Your task to perform on an android device: change keyboard looks Image 0: 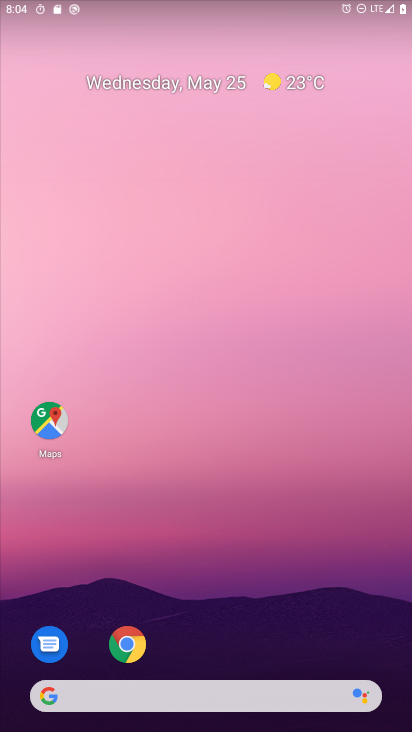
Step 0: drag from (332, 641) to (253, 88)
Your task to perform on an android device: change keyboard looks Image 1: 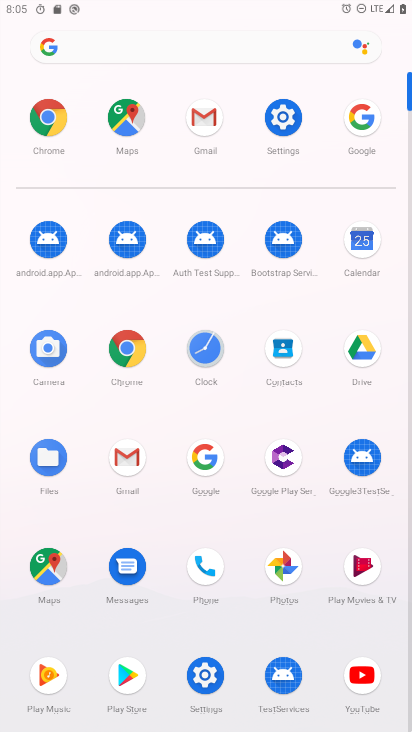
Step 1: click (213, 685)
Your task to perform on an android device: change keyboard looks Image 2: 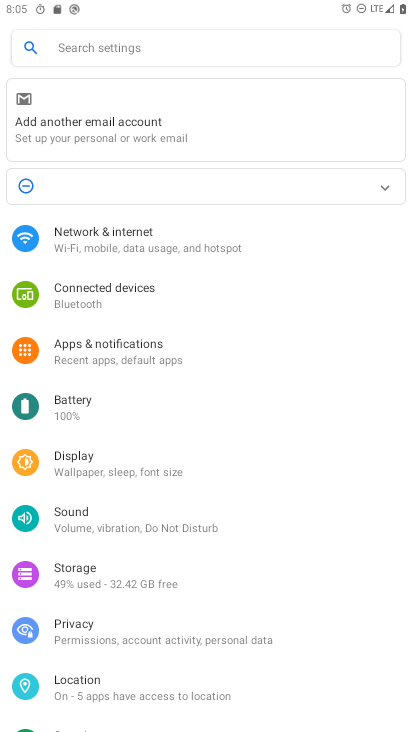
Step 2: drag from (200, 632) to (251, 56)
Your task to perform on an android device: change keyboard looks Image 3: 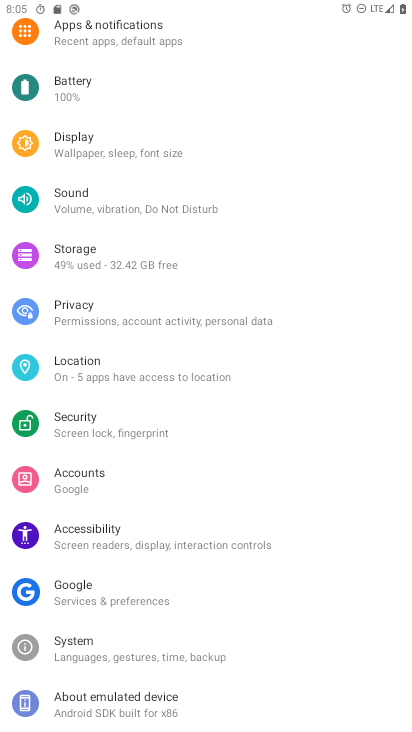
Step 3: click (163, 647)
Your task to perform on an android device: change keyboard looks Image 4: 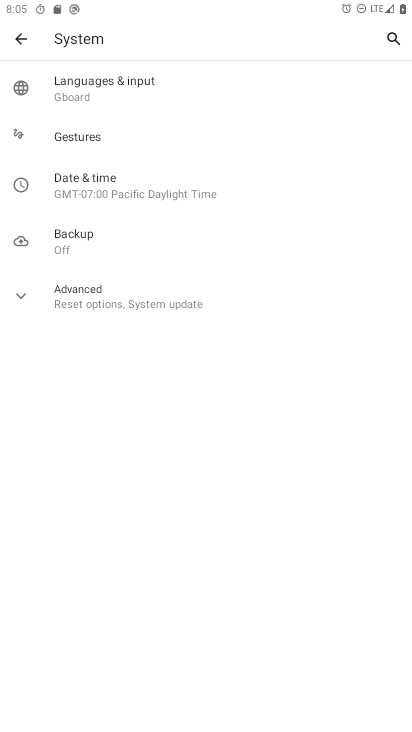
Step 4: click (121, 96)
Your task to perform on an android device: change keyboard looks Image 5: 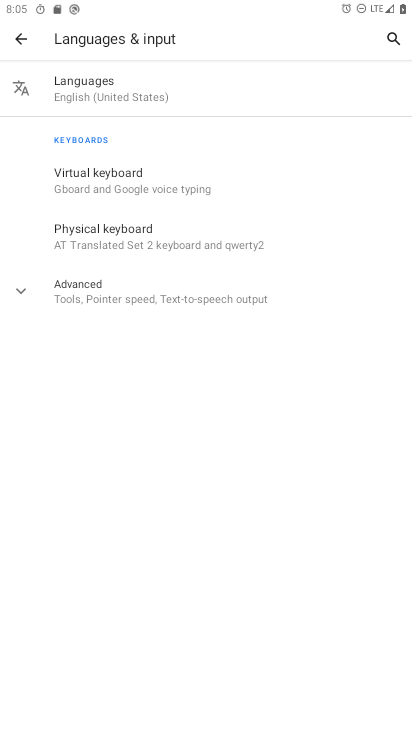
Step 5: click (127, 186)
Your task to perform on an android device: change keyboard looks Image 6: 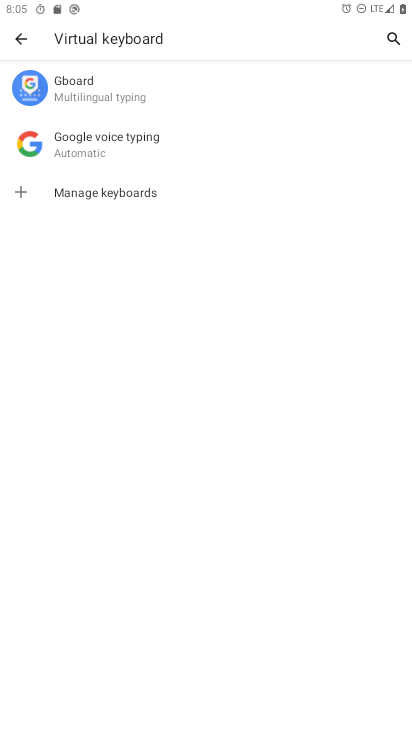
Step 6: click (156, 92)
Your task to perform on an android device: change keyboard looks Image 7: 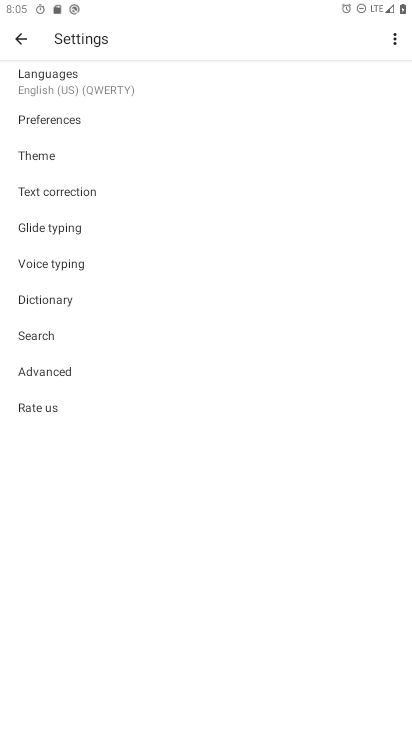
Step 7: click (56, 148)
Your task to perform on an android device: change keyboard looks Image 8: 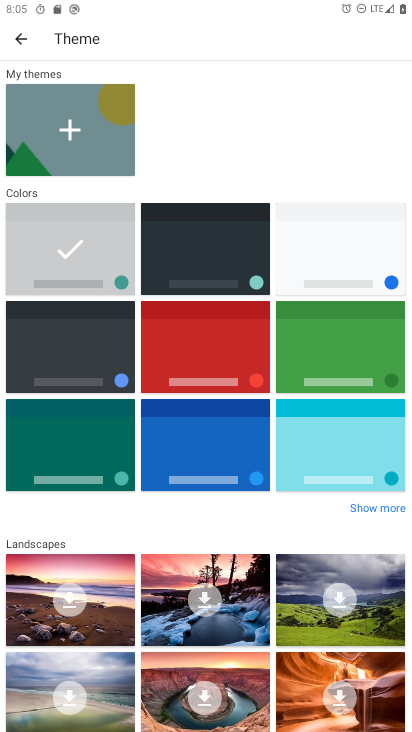
Step 8: click (205, 256)
Your task to perform on an android device: change keyboard looks Image 9: 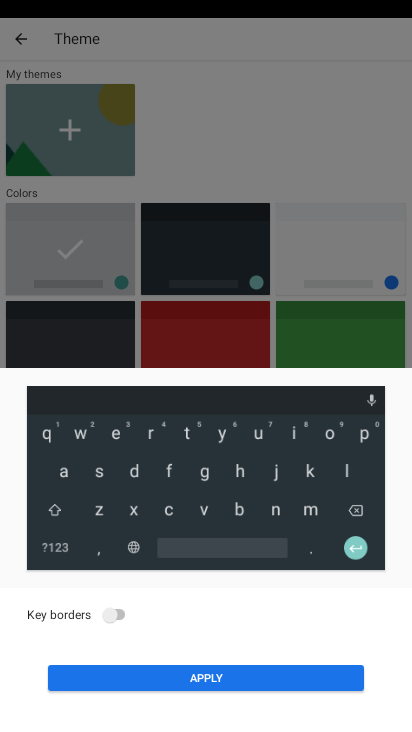
Step 9: click (203, 674)
Your task to perform on an android device: change keyboard looks Image 10: 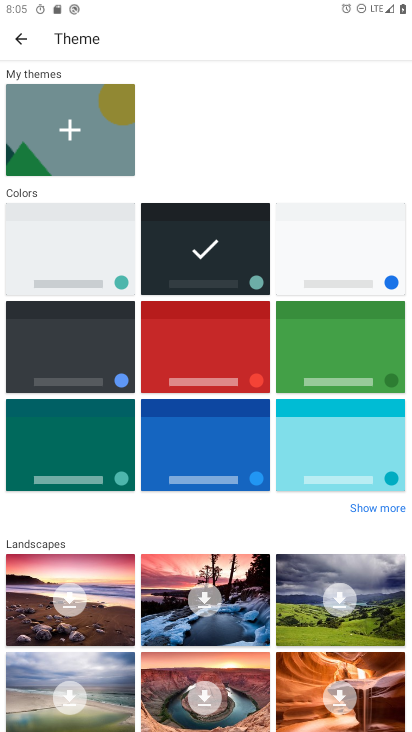
Step 10: task complete